Your task to perform on an android device: Open the stopwatch Image 0: 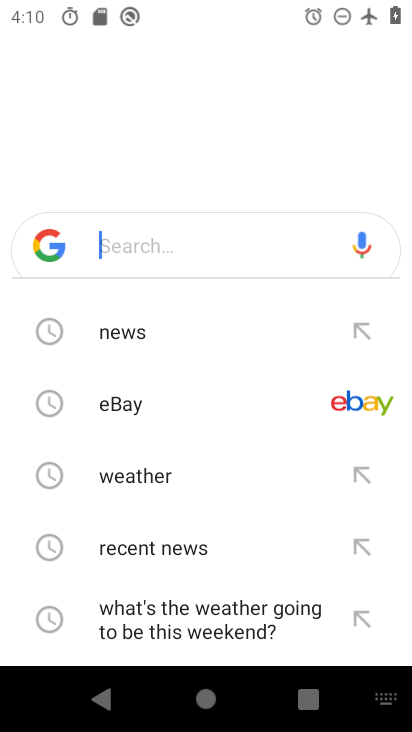
Step 0: press home button
Your task to perform on an android device: Open the stopwatch Image 1: 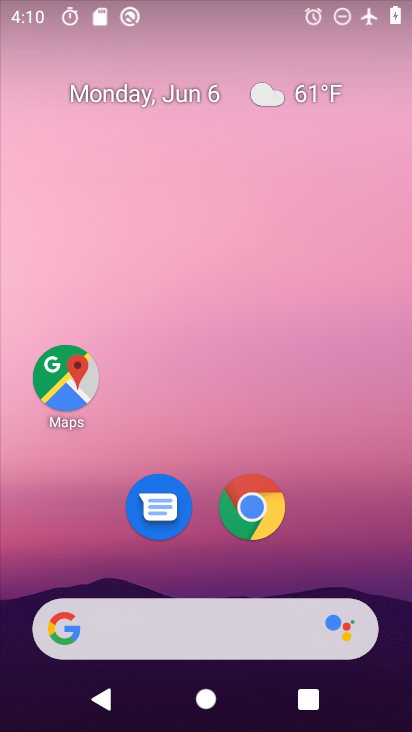
Step 1: drag from (203, 572) to (205, 174)
Your task to perform on an android device: Open the stopwatch Image 2: 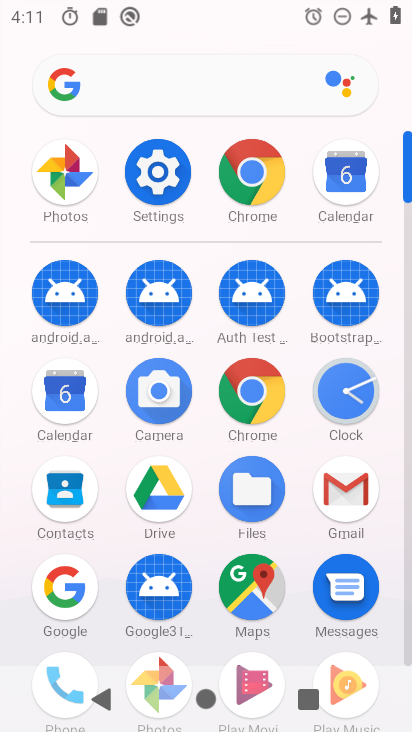
Step 2: click (339, 381)
Your task to perform on an android device: Open the stopwatch Image 3: 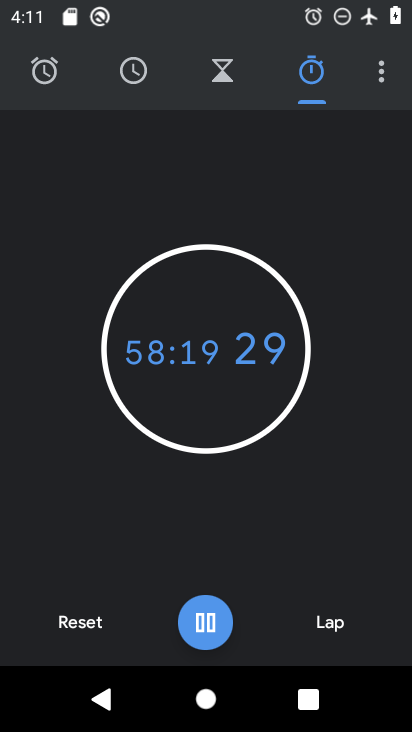
Step 3: task complete